Your task to perform on an android device: clear all cookies in the chrome app Image 0: 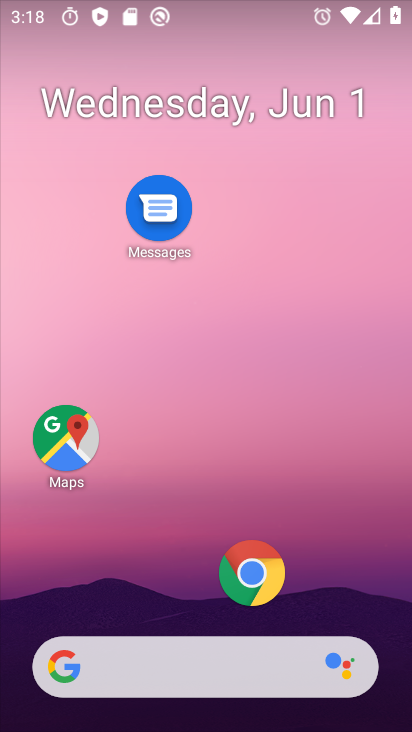
Step 0: click (251, 589)
Your task to perform on an android device: clear all cookies in the chrome app Image 1: 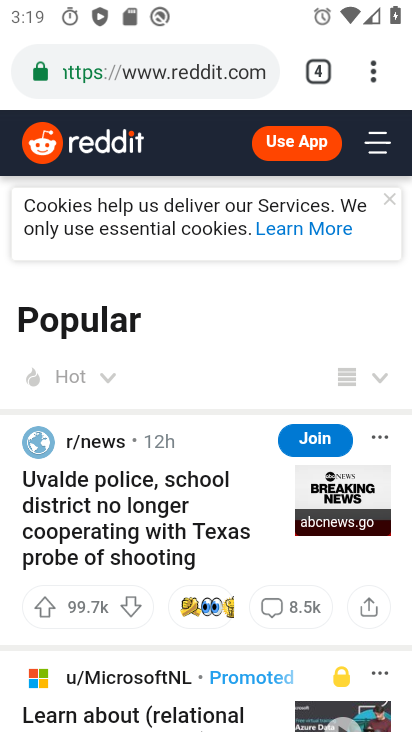
Step 1: drag from (369, 74) to (137, 401)
Your task to perform on an android device: clear all cookies in the chrome app Image 2: 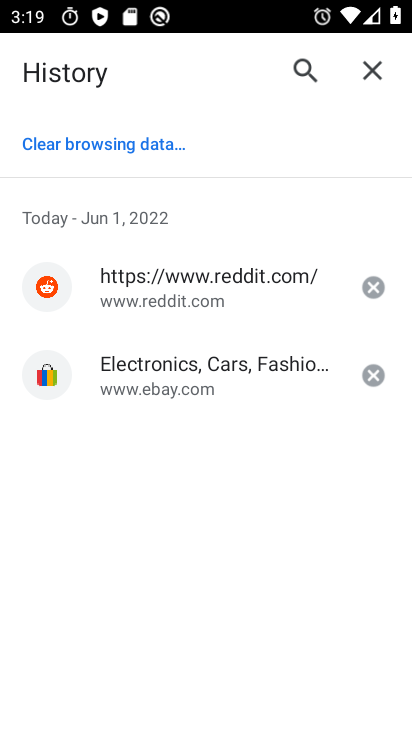
Step 2: click (71, 143)
Your task to perform on an android device: clear all cookies in the chrome app Image 3: 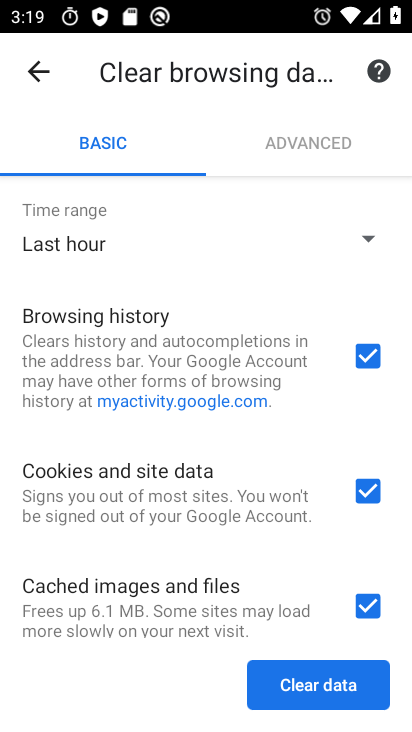
Step 3: click (351, 689)
Your task to perform on an android device: clear all cookies in the chrome app Image 4: 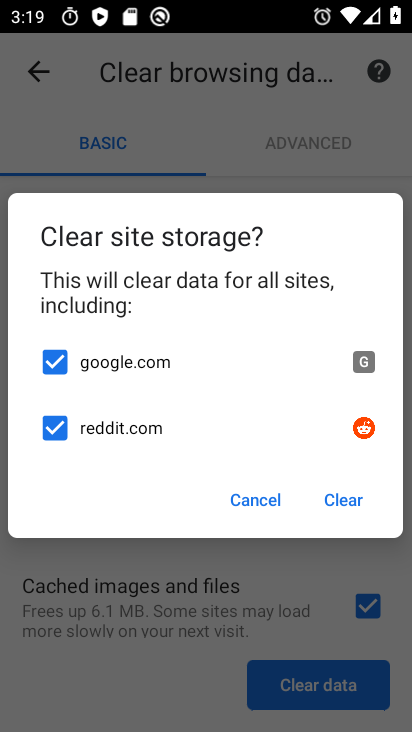
Step 4: click (349, 503)
Your task to perform on an android device: clear all cookies in the chrome app Image 5: 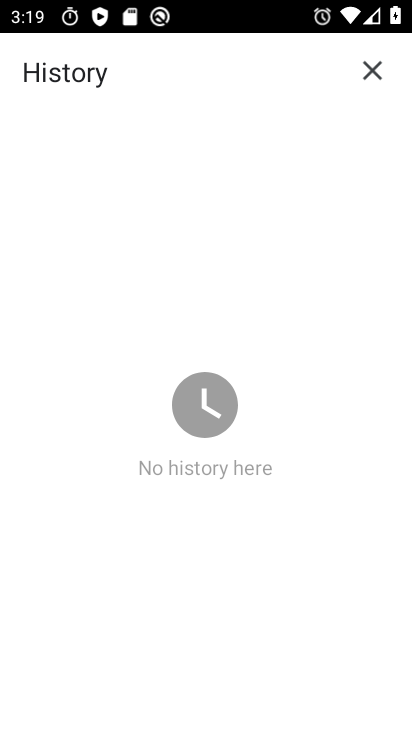
Step 5: task complete